Your task to perform on an android device: Go to Android settings Image 0: 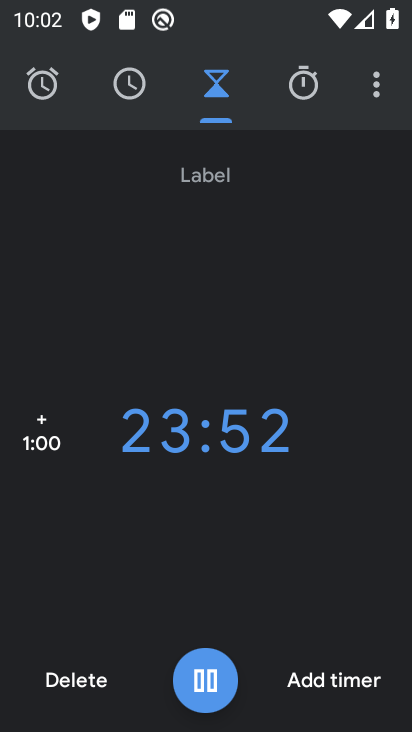
Step 0: press home button
Your task to perform on an android device: Go to Android settings Image 1: 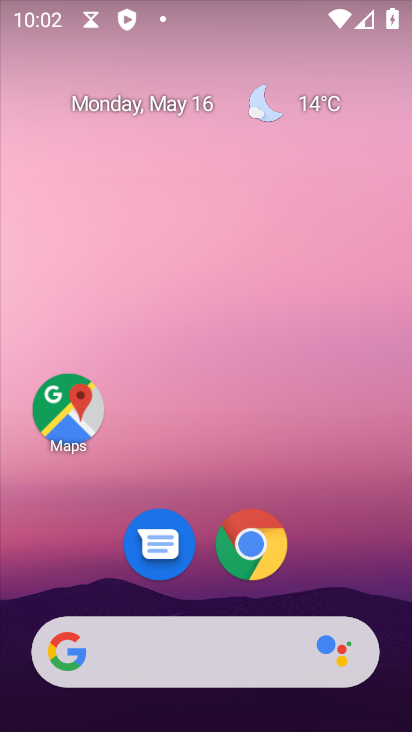
Step 1: drag from (318, 553) to (328, 164)
Your task to perform on an android device: Go to Android settings Image 2: 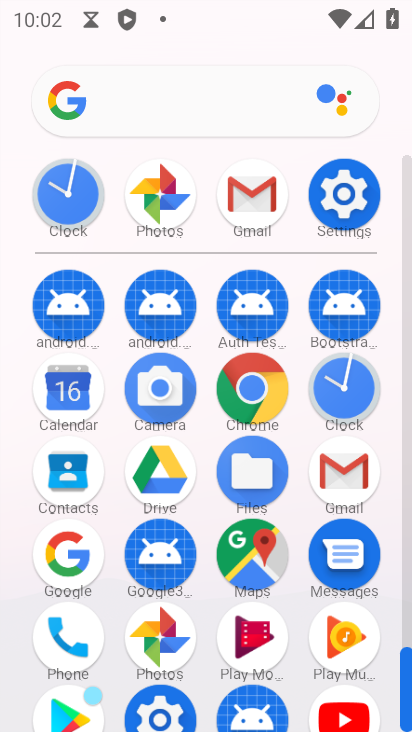
Step 2: click (340, 202)
Your task to perform on an android device: Go to Android settings Image 3: 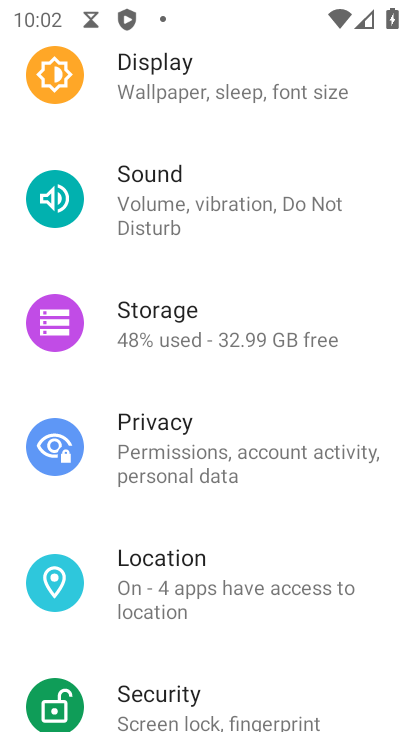
Step 3: drag from (263, 684) to (316, 225)
Your task to perform on an android device: Go to Android settings Image 4: 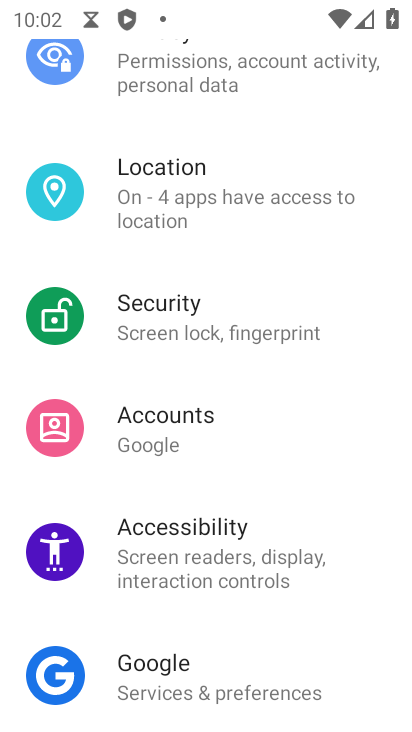
Step 4: drag from (227, 656) to (269, 156)
Your task to perform on an android device: Go to Android settings Image 5: 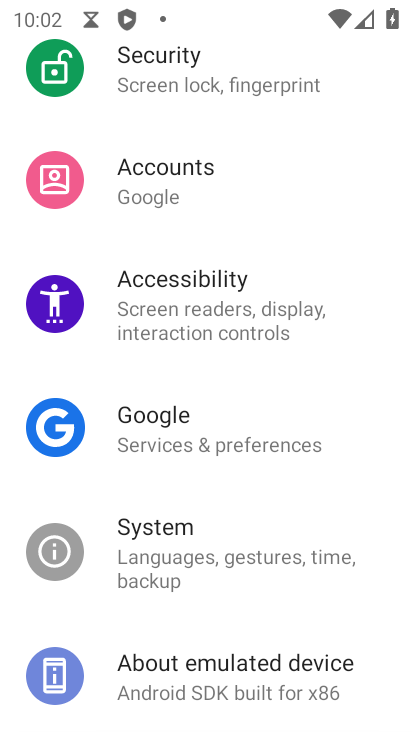
Step 5: click (237, 669)
Your task to perform on an android device: Go to Android settings Image 6: 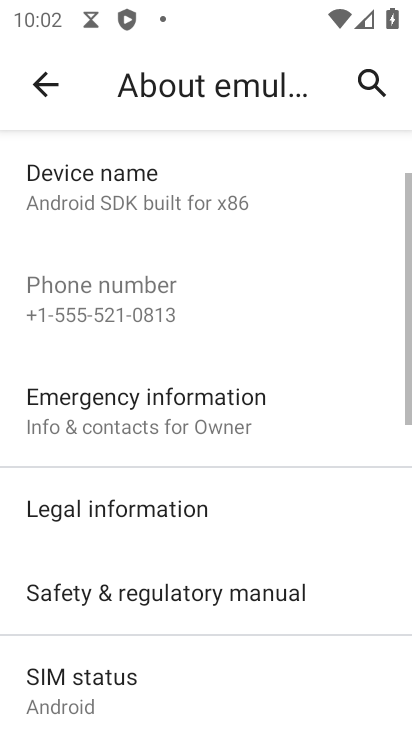
Step 6: drag from (204, 617) to (246, 208)
Your task to perform on an android device: Go to Android settings Image 7: 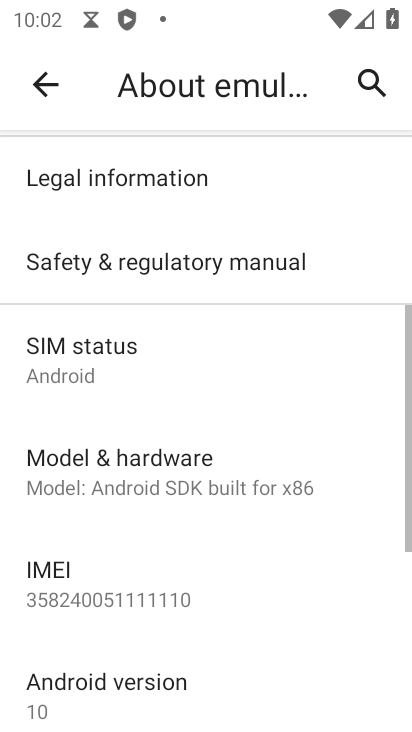
Step 7: drag from (204, 649) to (226, 400)
Your task to perform on an android device: Go to Android settings Image 8: 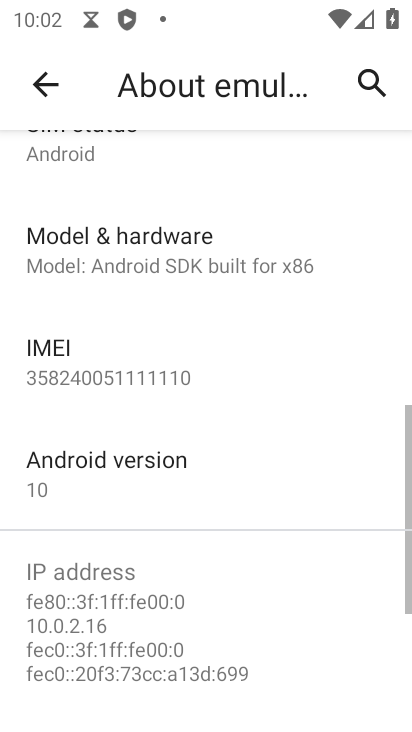
Step 8: click (206, 462)
Your task to perform on an android device: Go to Android settings Image 9: 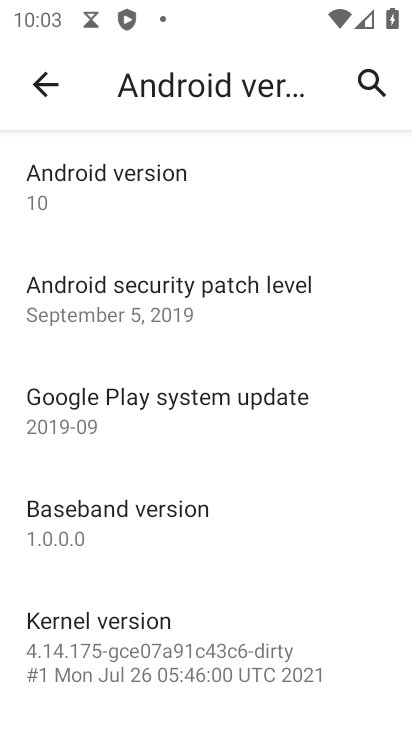
Step 9: task complete